Your task to perform on an android device: turn off notifications in google photos Image 0: 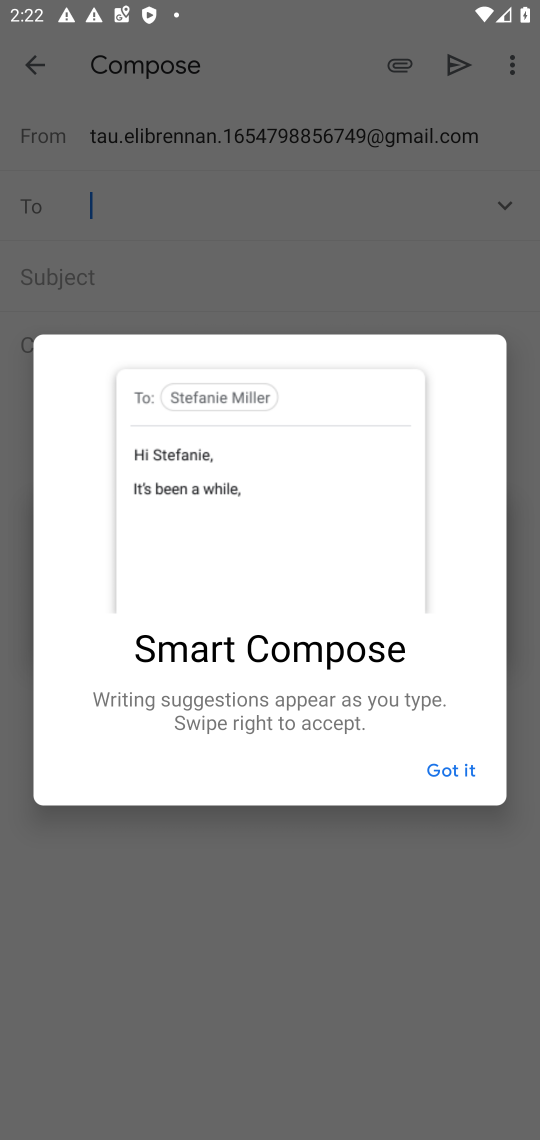
Step 0: press home button
Your task to perform on an android device: turn off notifications in google photos Image 1: 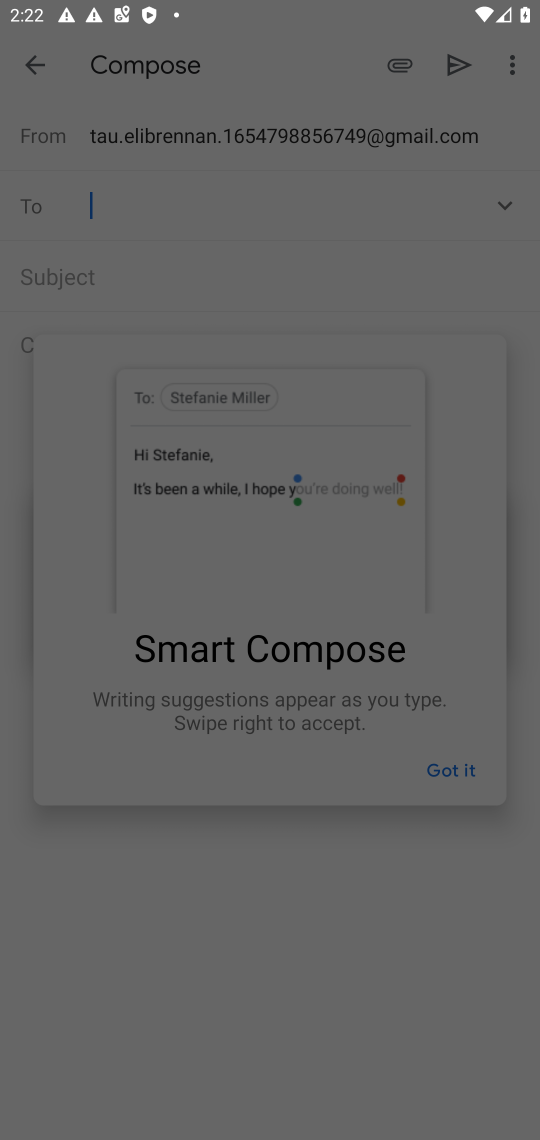
Step 1: drag from (489, 1038) to (201, 32)
Your task to perform on an android device: turn off notifications in google photos Image 2: 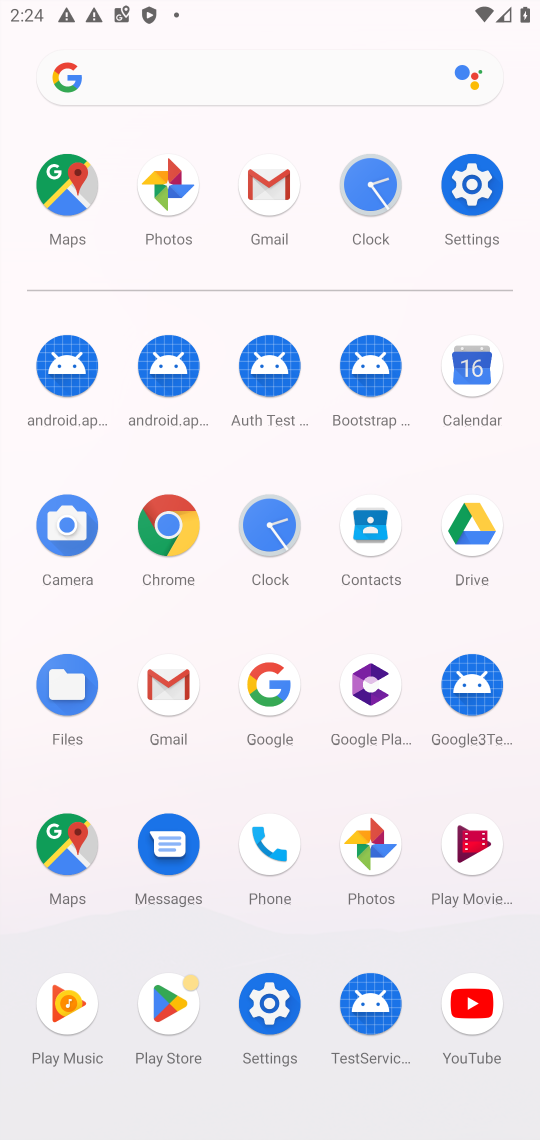
Step 2: click (361, 869)
Your task to perform on an android device: turn off notifications in google photos Image 3: 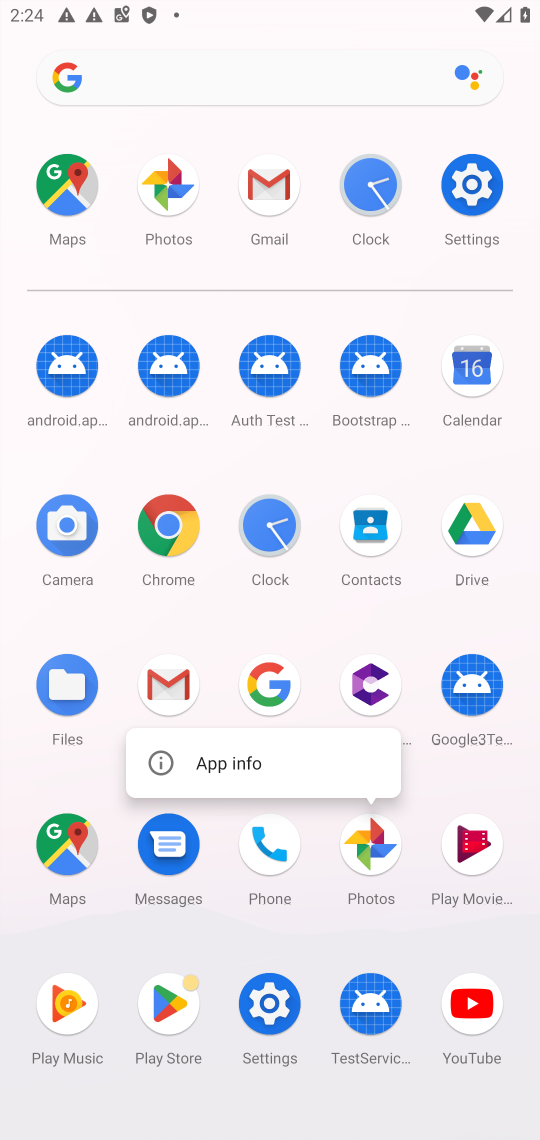
Step 3: click (371, 859)
Your task to perform on an android device: turn off notifications in google photos Image 4: 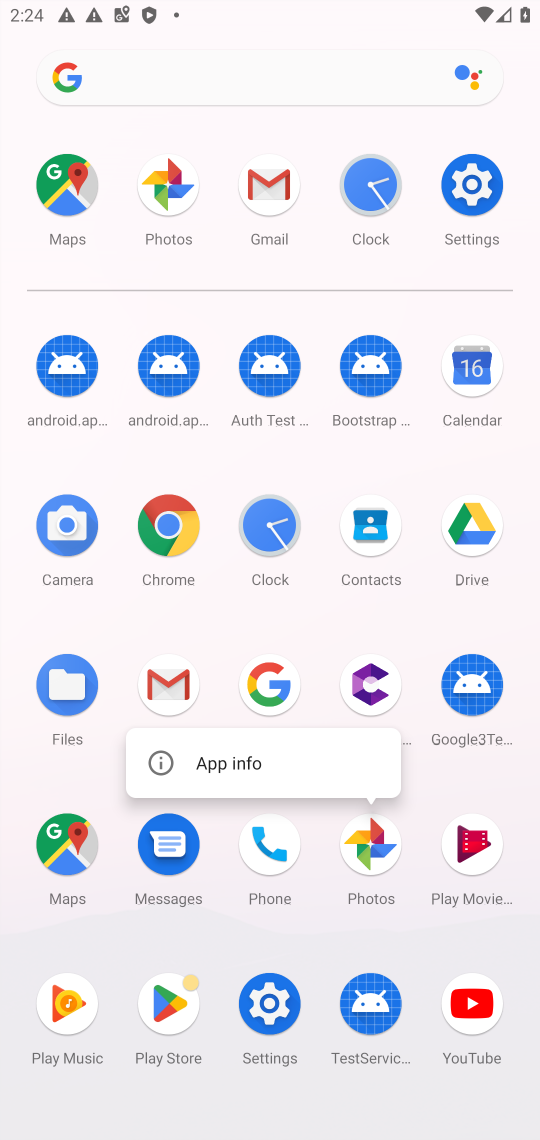
Step 4: click (371, 859)
Your task to perform on an android device: turn off notifications in google photos Image 5: 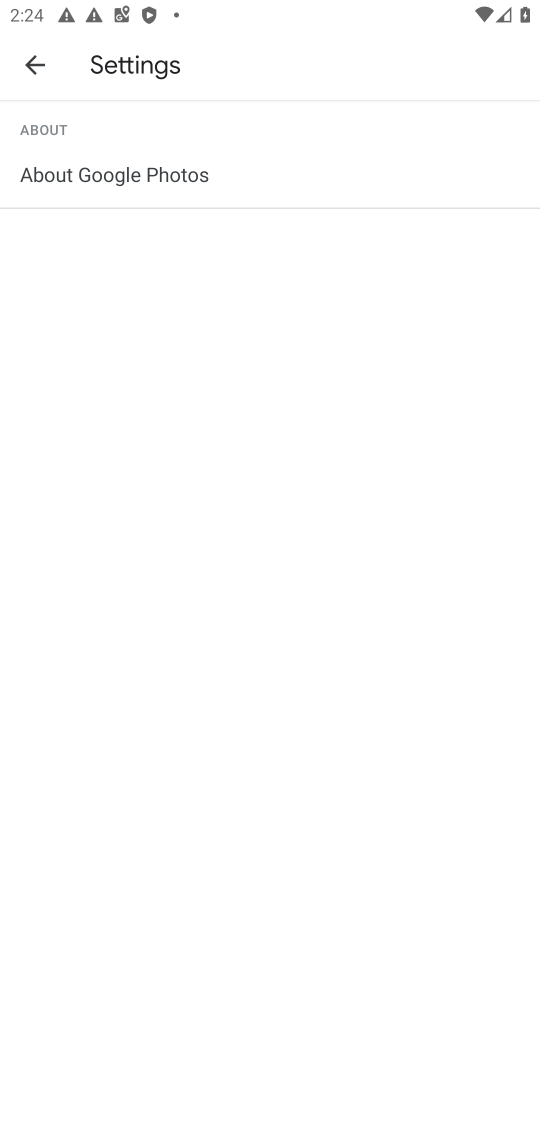
Step 5: press back button
Your task to perform on an android device: turn off notifications in google photos Image 6: 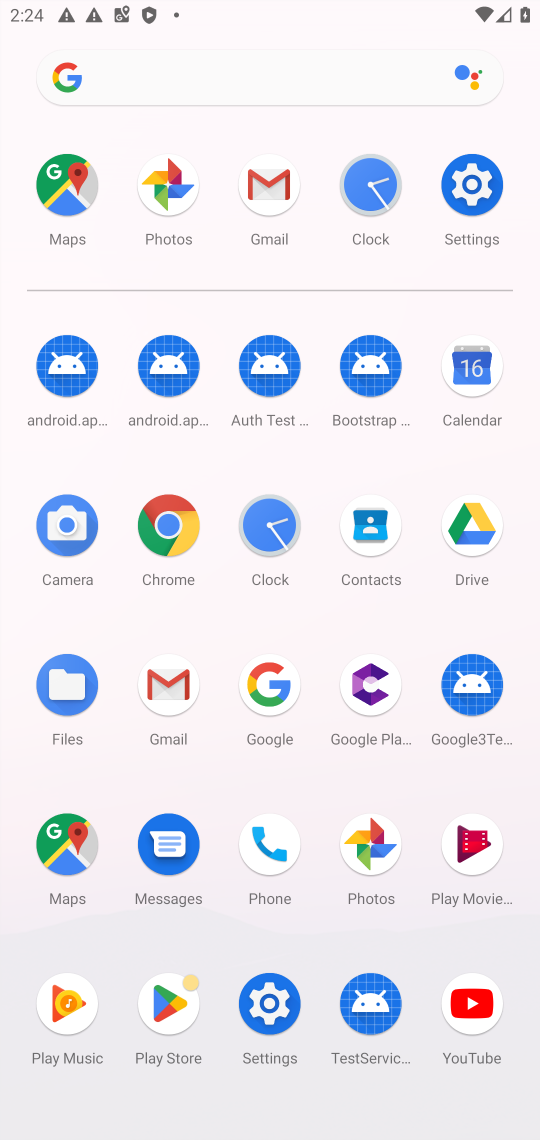
Step 6: click (360, 825)
Your task to perform on an android device: turn off notifications in google photos Image 7: 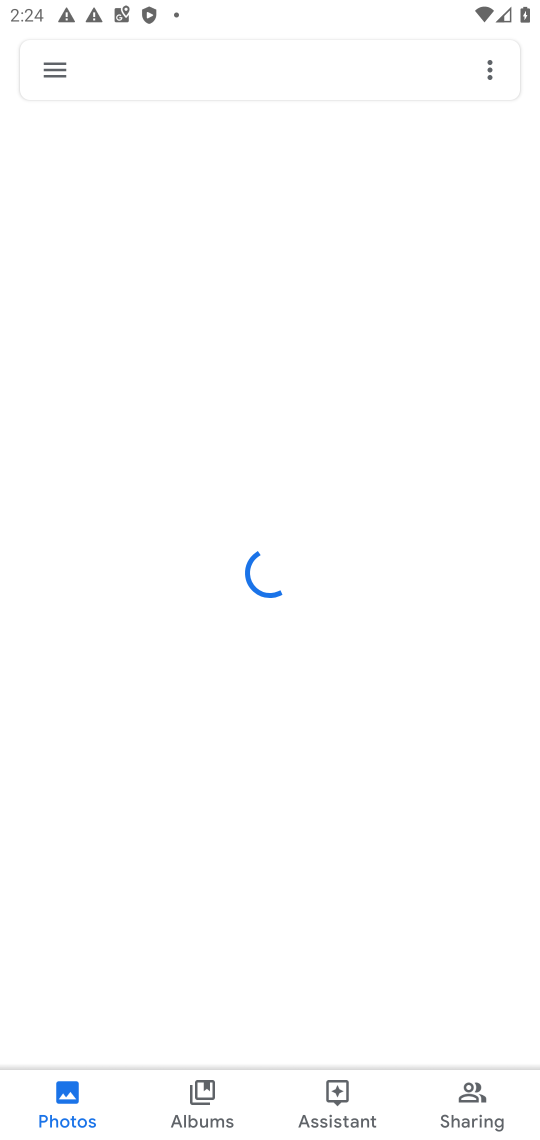
Step 7: click (69, 65)
Your task to perform on an android device: turn off notifications in google photos Image 8: 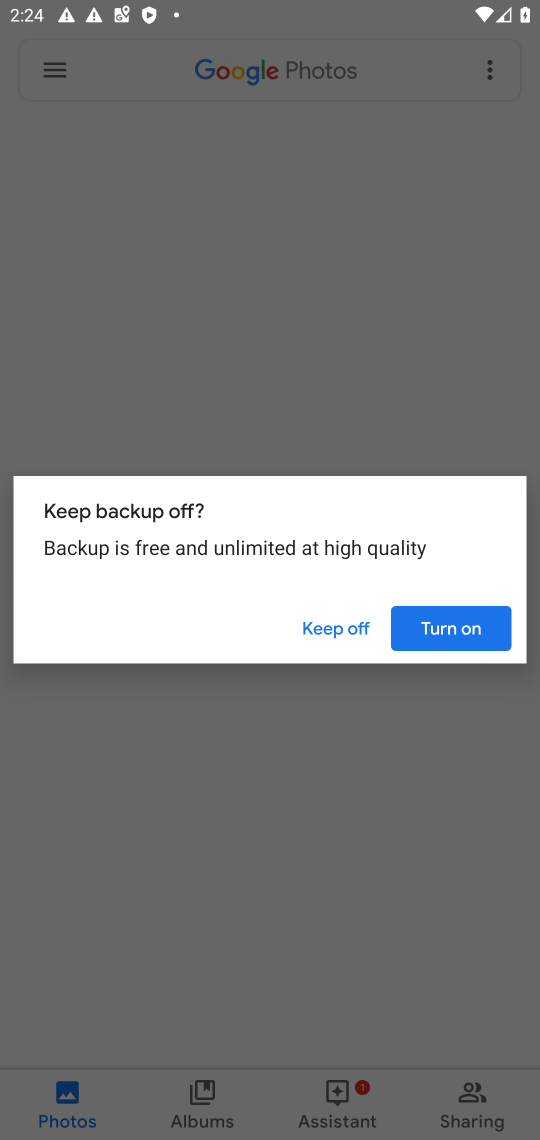
Step 8: click (464, 634)
Your task to perform on an android device: turn off notifications in google photos Image 9: 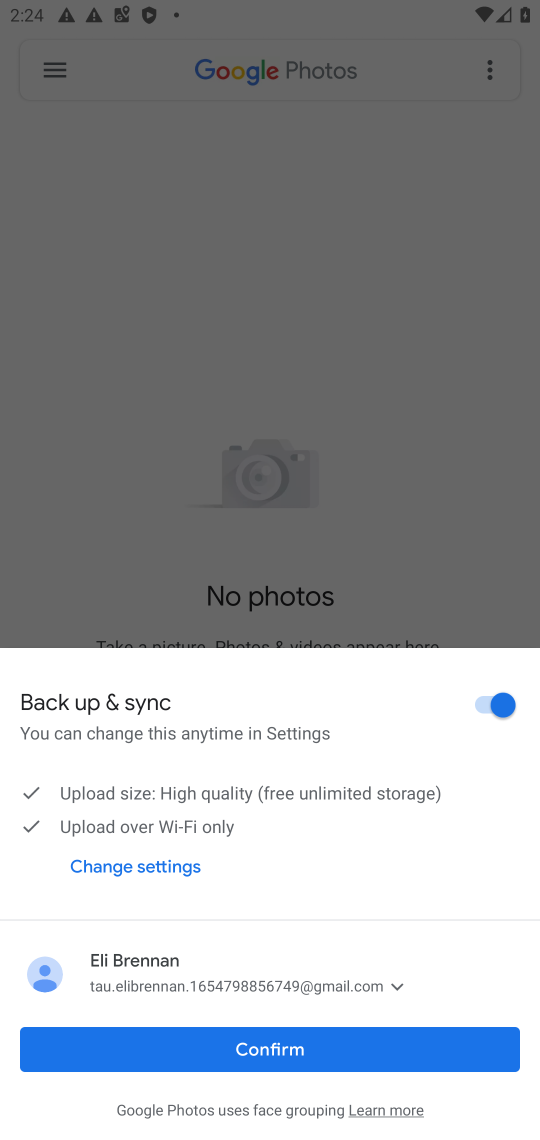
Step 9: click (235, 1038)
Your task to perform on an android device: turn off notifications in google photos Image 10: 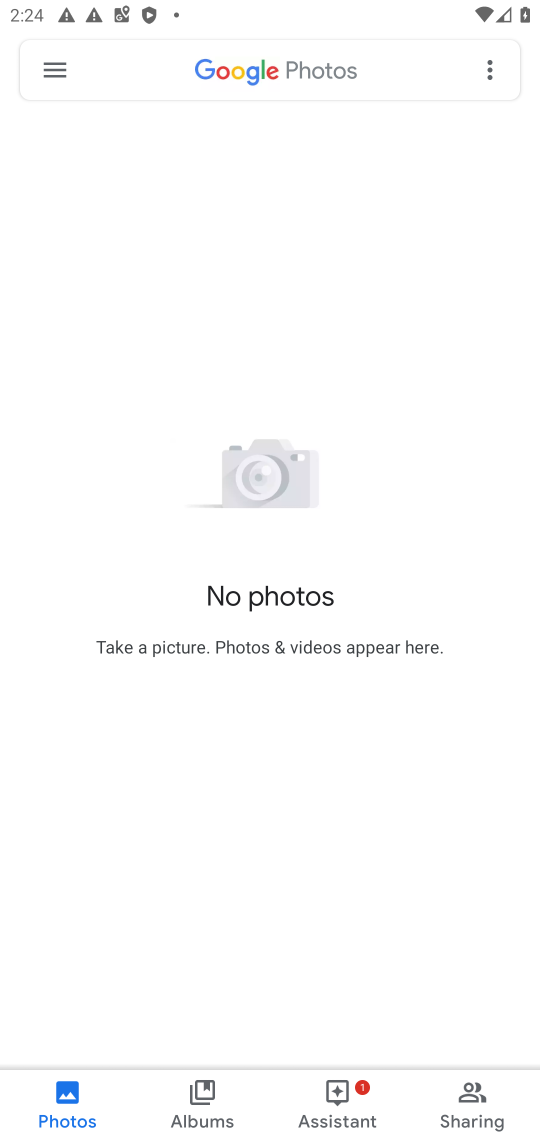
Step 10: click (52, 64)
Your task to perform on an android device: turn off notifications in google photos Image 11: 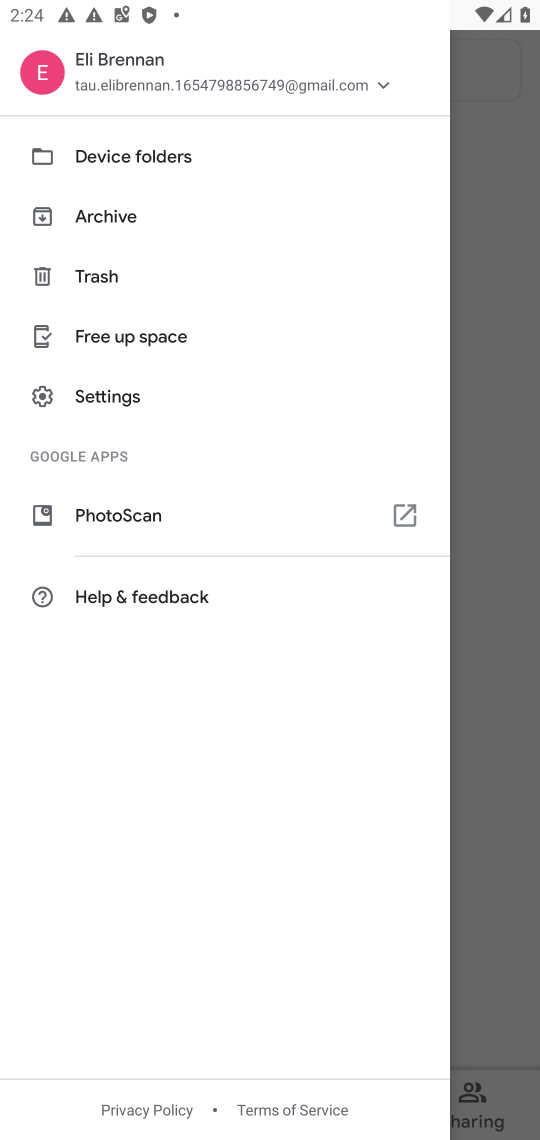
Step 11: click (109, 381)
Your task to perform on an android device: turn off notifications in google photos Image 12: 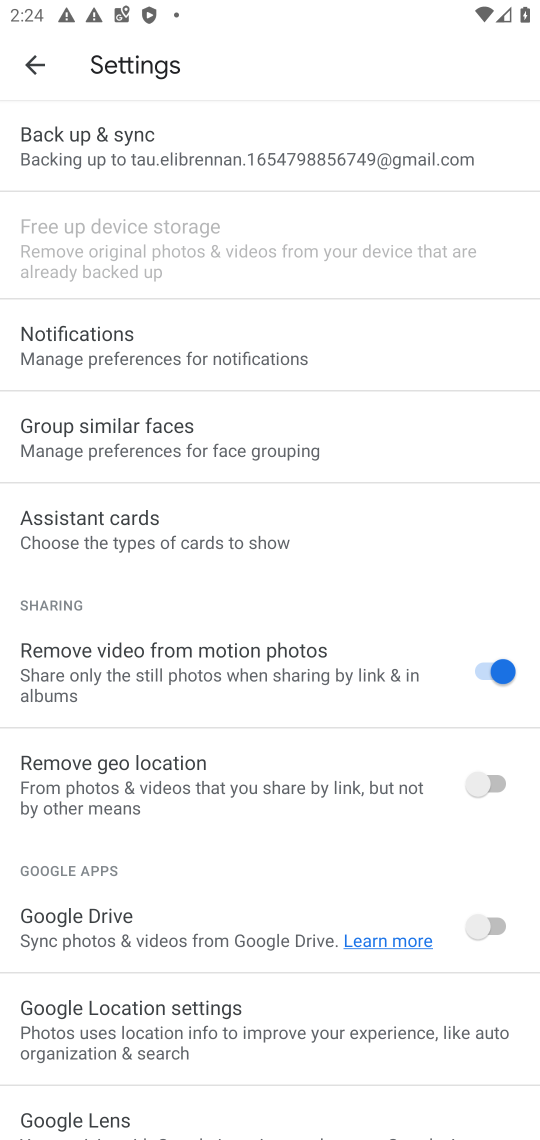
Step 12: click (127, 358)
Your task to perform on an android device: turn off notifications in google photos Image 13: 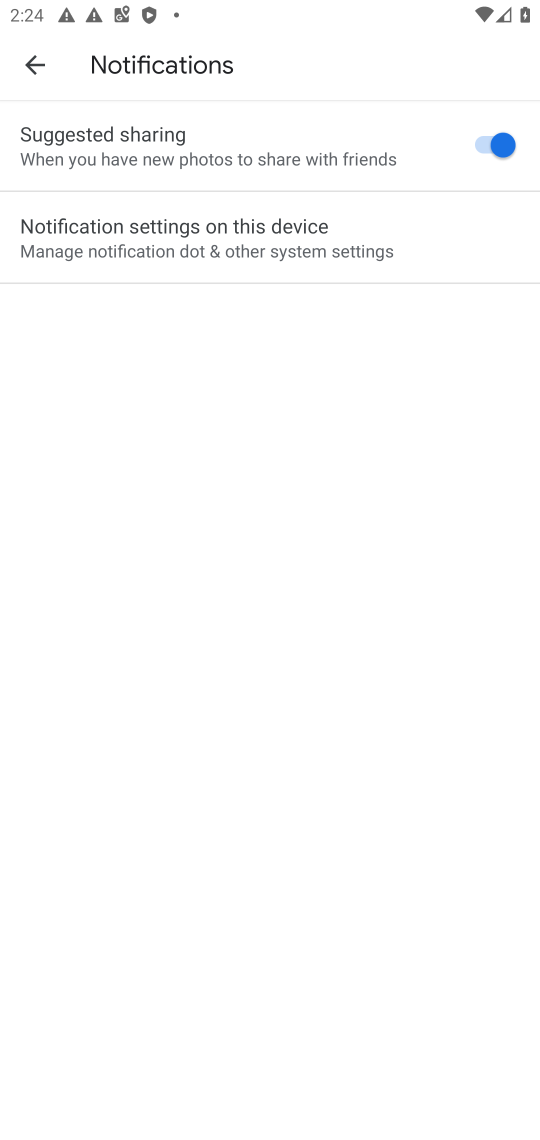
Step 13: click (461, 156)
Your task to perform on an android device: turn off notifications in google photos Image 14: 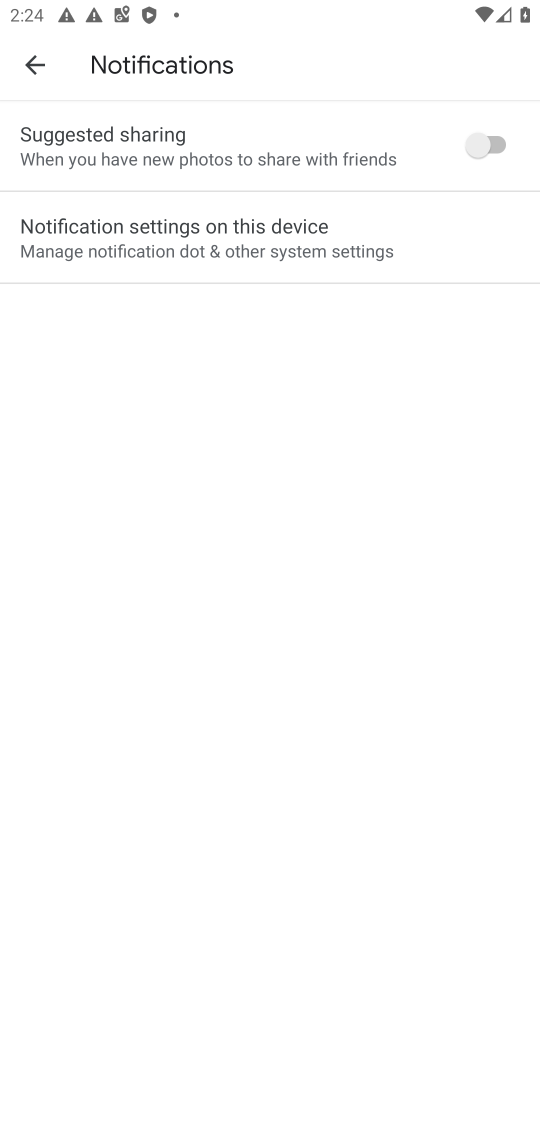
Step 14: task complete